Your task to perform on an android device: Go to sound settings Image 0: 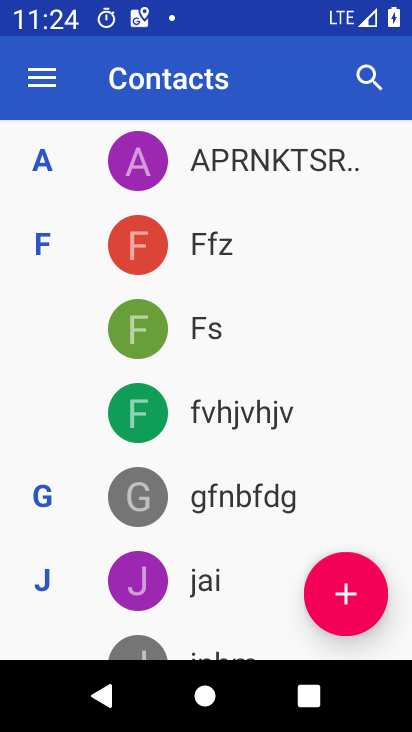
Step 0: press back button
Your task to perform on an android device: Go to sound settings Image 1: 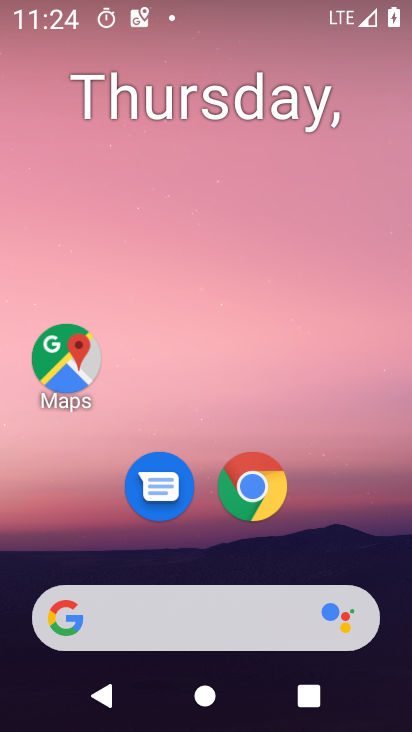
Step 1: drag from (183, 490) to (260, 15)
Your task to perform on an android device: Go to sound settings Image 2: 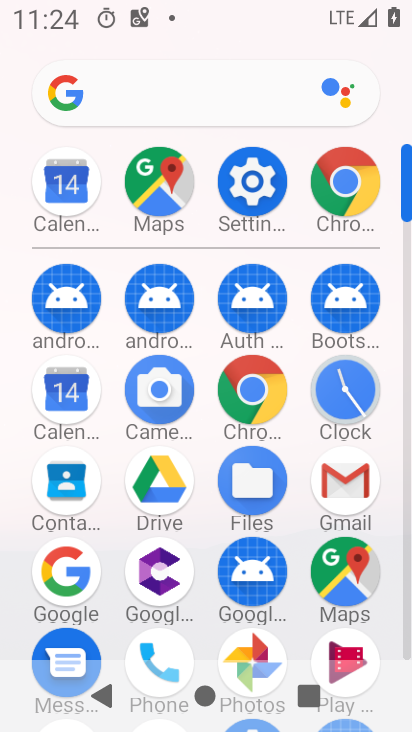
Step 2: click (226, 172)
Your task to perform on an android device: Go to sound settings Image 3: 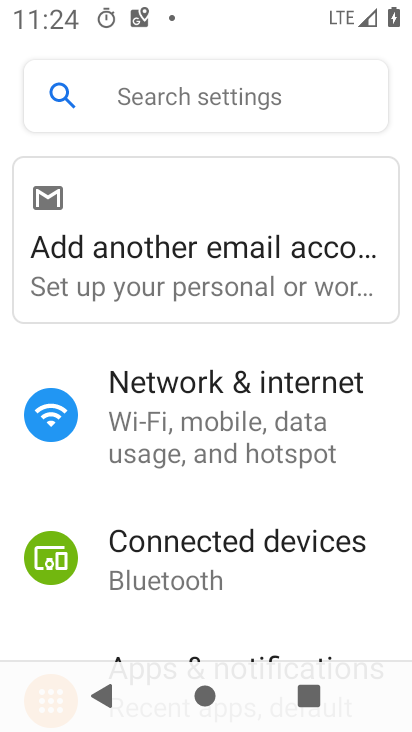
Step 3: drag from (211, 620) to (320, 137)
Your task to perform on an android device: Go to sound settings Image 4: 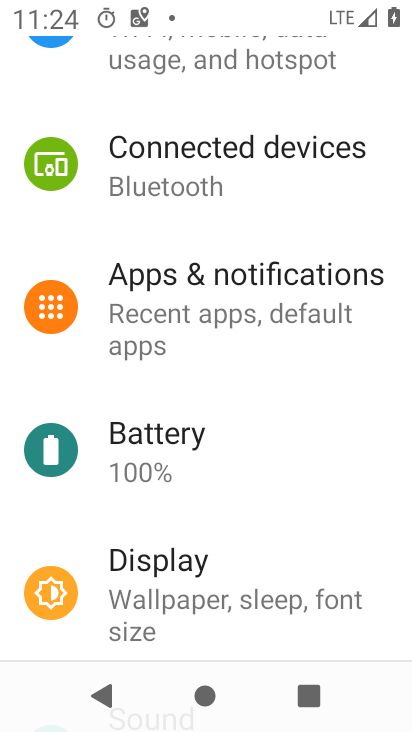
Step 4: drag from (211, 554) to (340, 67)
Your task to perform on an android device: Go to sound settings Image 5: 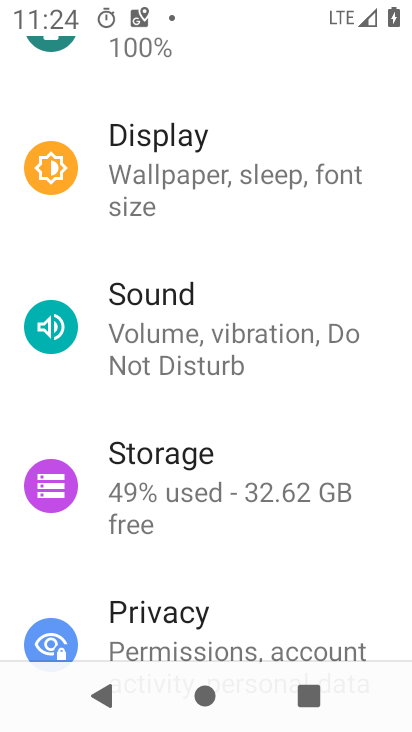
Step 5: click (202, 359)
Your task to perform on an android device: Go to sound settings Image 6: 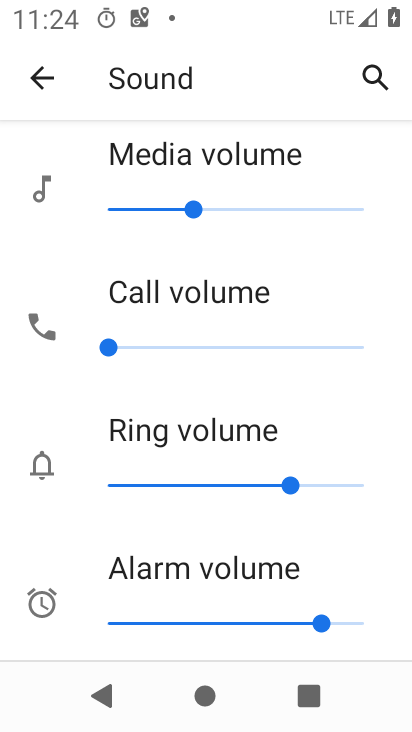
Step 6: task complete